Your task to perform on an android device: Open Maps and search for coffee Image 0: 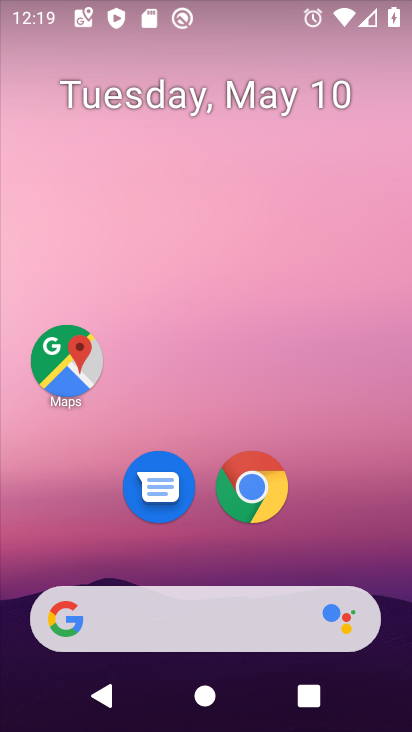
Step 0: drag from (365, 515) to (295, 188)
Your task to perform on an android device: Open Maps and search for coffee Image 1: 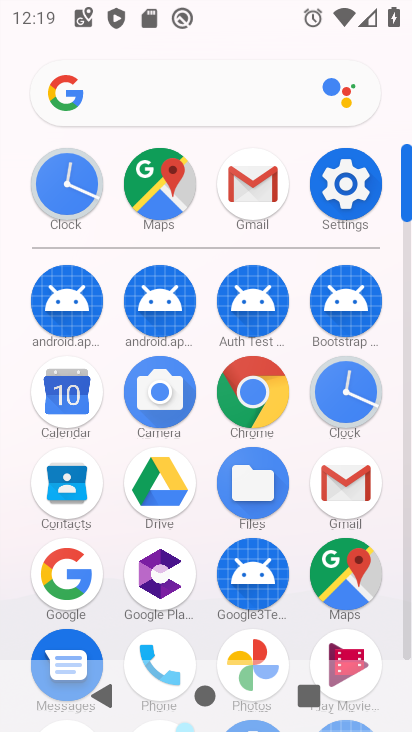
Step 1: click (164, 216)
Your task to perform on an android device: Open Maps and search for coffee Image 2: 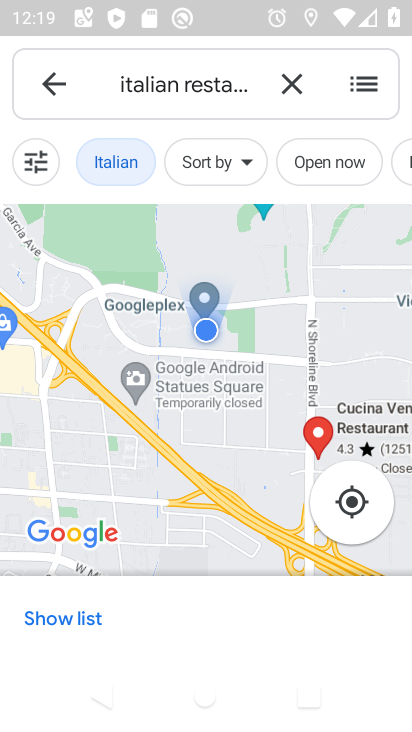
Step 2: click (175, 79)
Your task to perform on an android device: Open Maps and search for coffee Image 3: 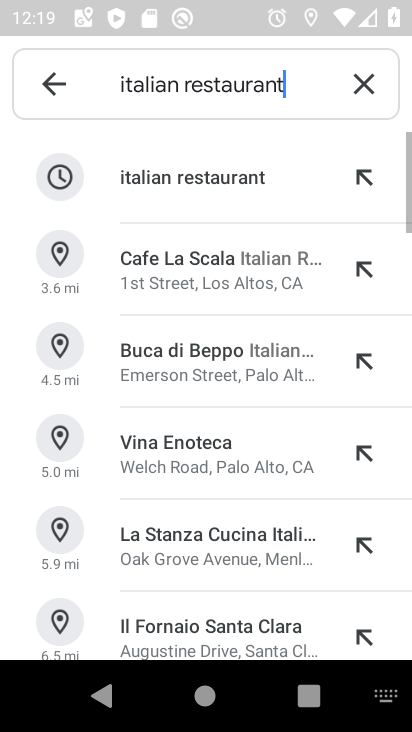
Step 3: click (350, 85)
Your task to perform on an android device: Open Maps and search for coffee Image 4: 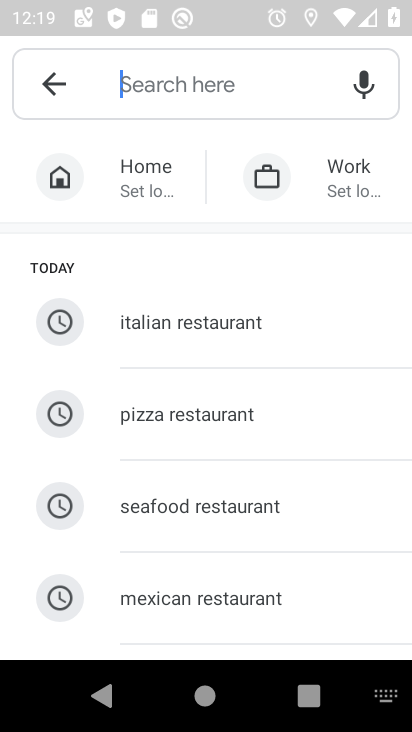
Step 4: drag from (250, 563) to (275, 217)
Your task to perform on an android device: Open Maps and search for coffee Image 5: 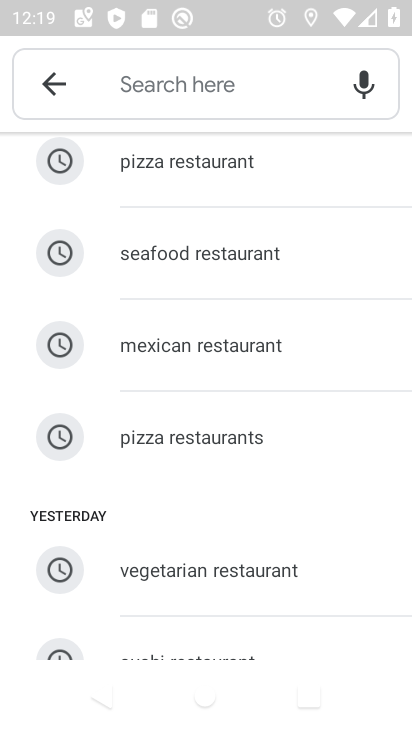
Step 5: drag from (258, 586) to (303, 266)
Your task to perform on an android device: Open Maps and search for coffee Image 6: 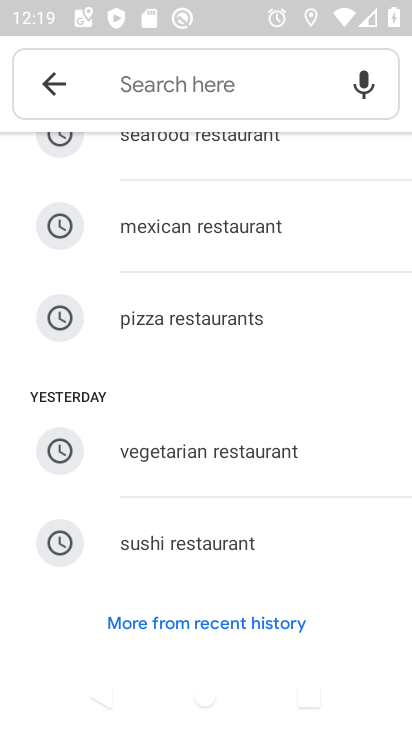
Step 6: click (272, 102)
Your task to perform on an android device: Open Maps and search for coffee Image 7: 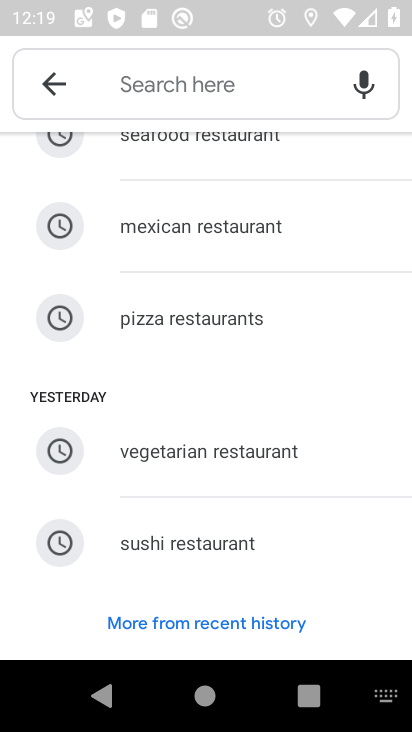
Step 7: type "coffe"
Your task to perform on an android device: Open Maps and search for coffee Image 8: 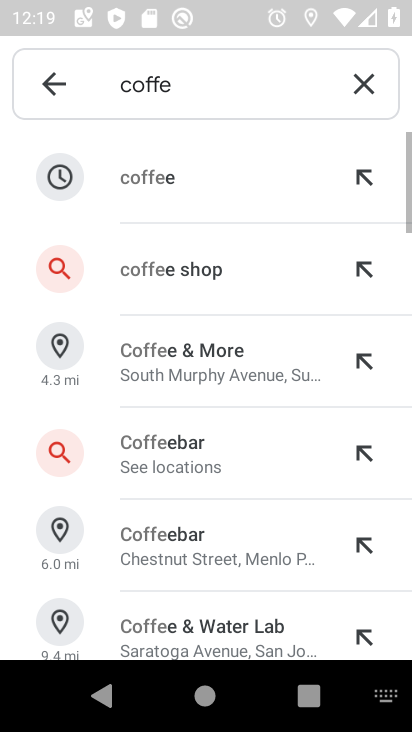
Step 8: click (208, 182)
Your task to perform on an android device: Open Maps and search for coffee Image 9: 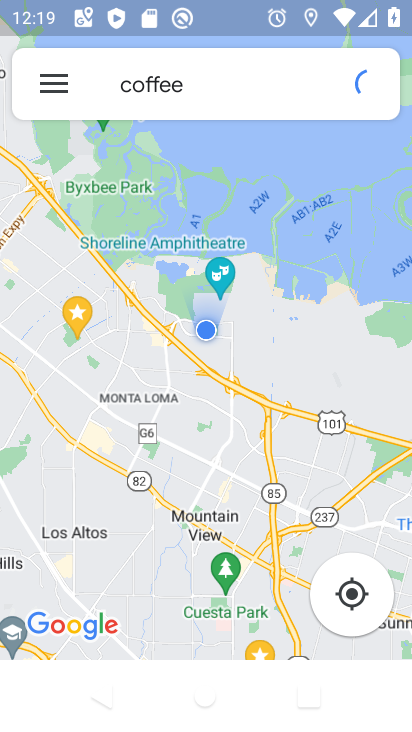
Step 9: task complete